Your task to perform on an android device: change text size in settings app Image 0: 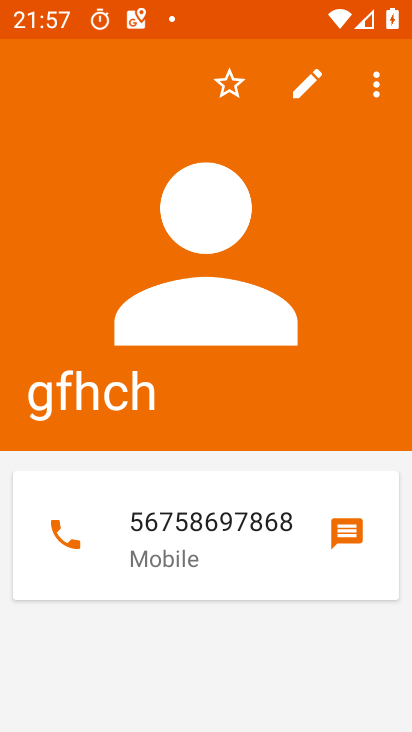
Step 0: press home button
Your task to perform on an android device: change text size in settings app Image 1: 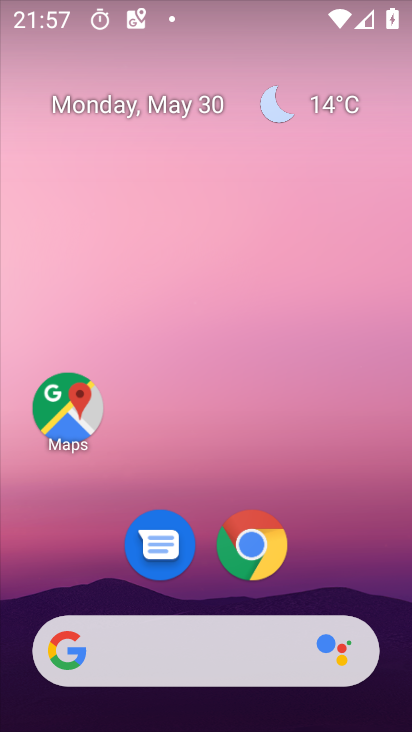
Step 1: drag from (338, 541) to (307, 160)
Your task to perform on an android device: change text size in settings app Image 2: 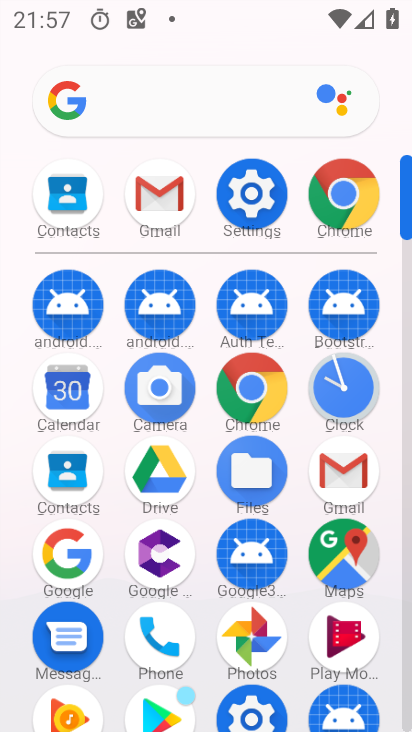
Step 2: click (254, 191)
Your task to perform on an android device: change text size in settings app Image 3: 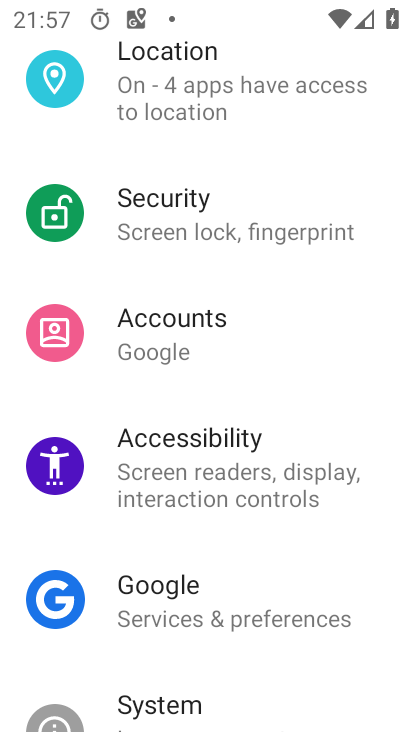
Step 3: drag from (278, 179) to (240, 519)
Your task to perform on an android device: change text size in settings app Image 4: 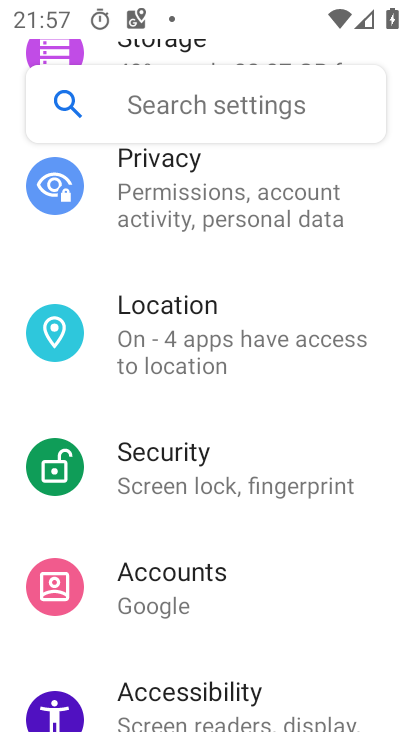
Step 4: drag from (268, 174) to (269, 510)
Your task to perform on an android device: change text size in settings app Image 5: 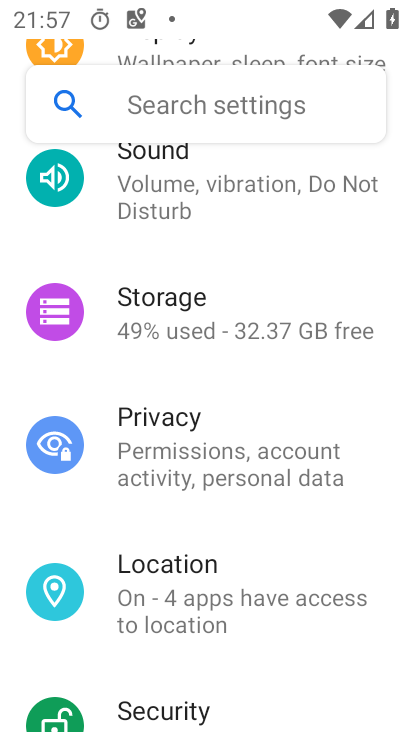
Step 5: drag from (292, 235) to (237, 688)
Your task to perform on an android device: change text size in settings app Image 6: 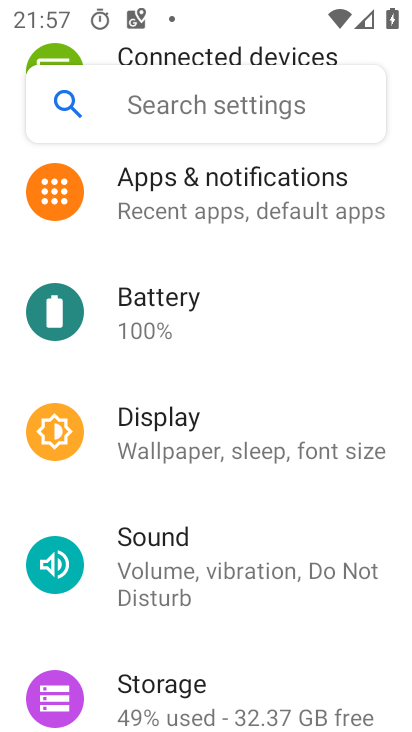
Step 6: click (231, 435)
Your task to perform on an android device: change text size in settings app Image 7: 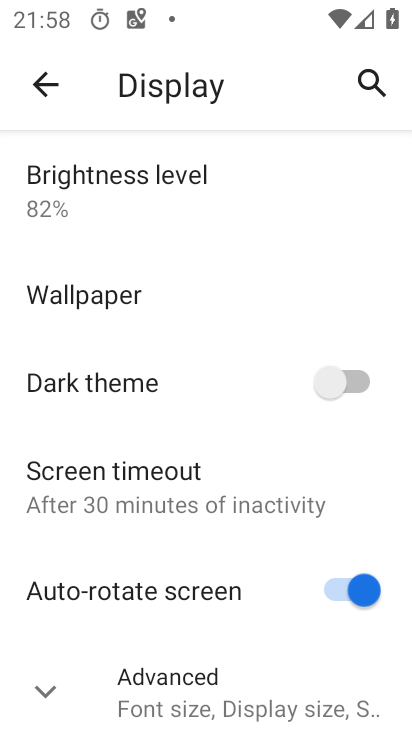
Step 7: drag from (228, 654) to (215, 296)
Your task to perform on an android device: change text size in settings app Image 8: 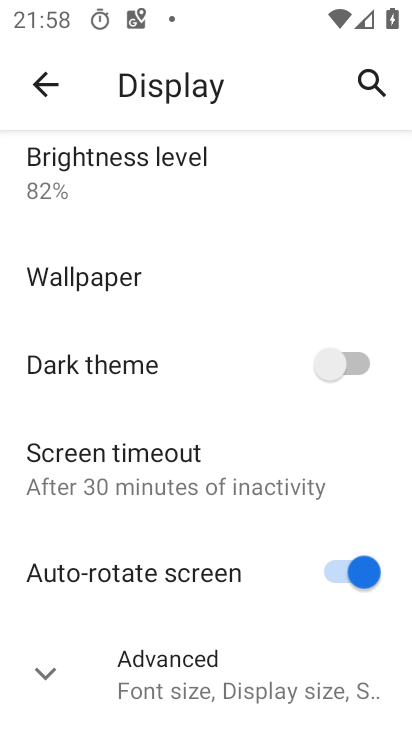
Step 8: click (219, 664)
Your task to perform on an android device: change text size in settings app Image 9: 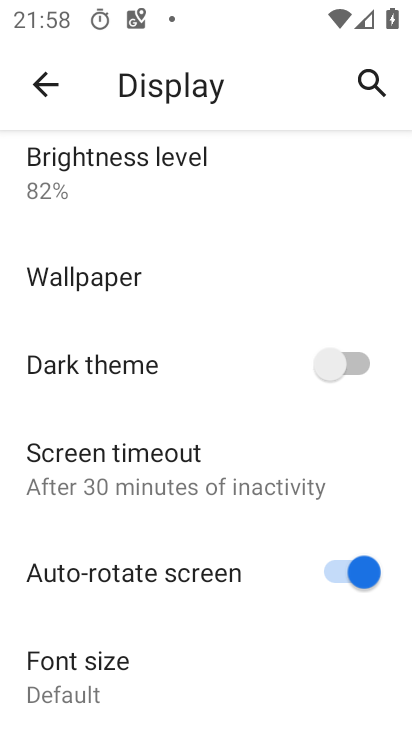
Step 9: click (85, 669)
Your task to perform on an android device: change text size in settings app Image 10: 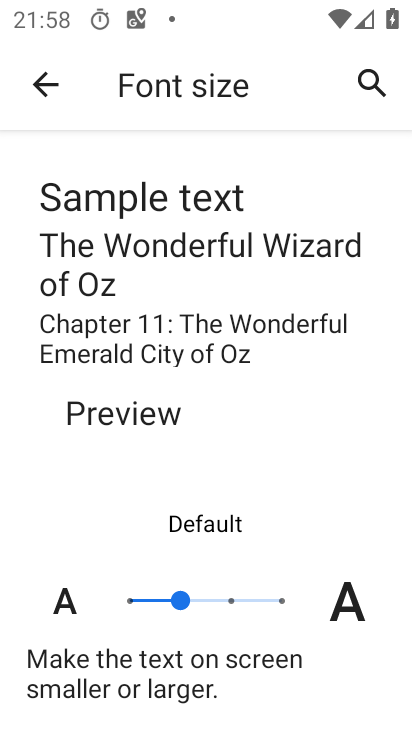
Step 10: click (128, 603)
Your task to perform on an android device: change text size in settings app Image 11: 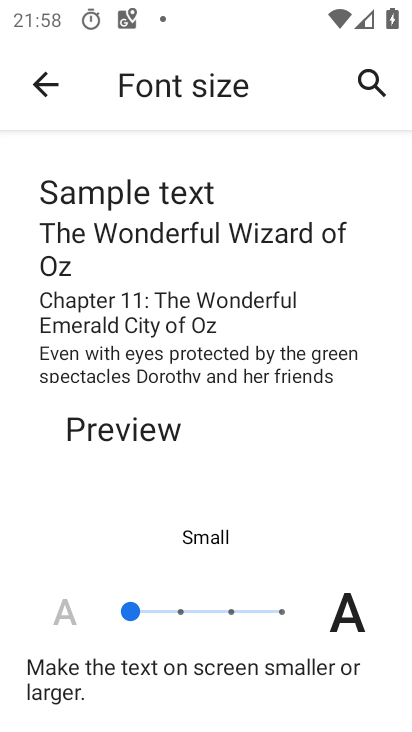
Step 11: task complete